Your task to perform on an android device: Check the weather Image 0: 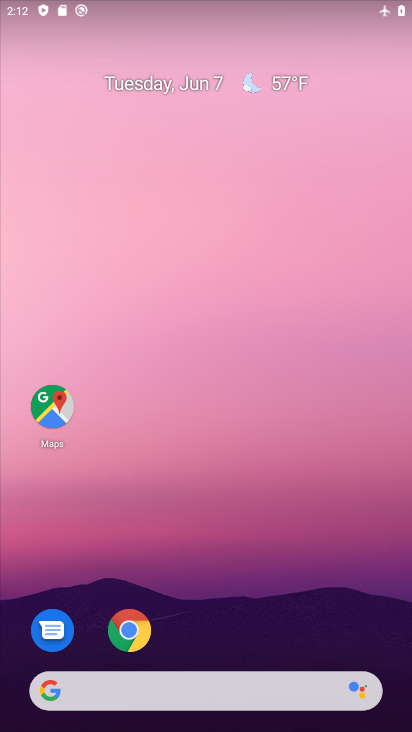
Step 0: drag from (14, 192) to (401, 152)
Your task to perform on an android device: Check the weather Image 1: 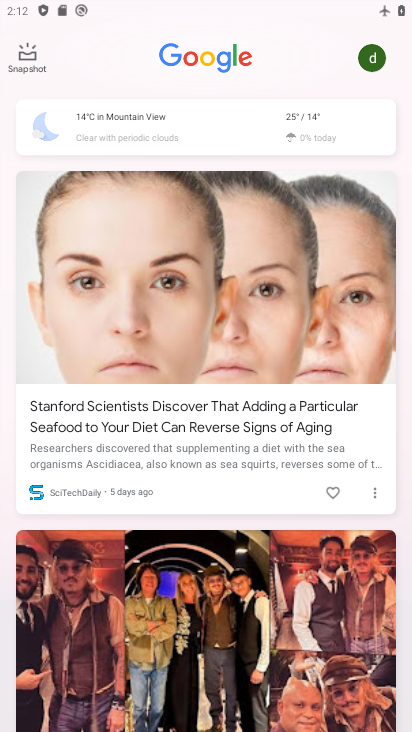
Step 1: click (316, 112)
Your task to perform on an android device: Check the weather Image 2: 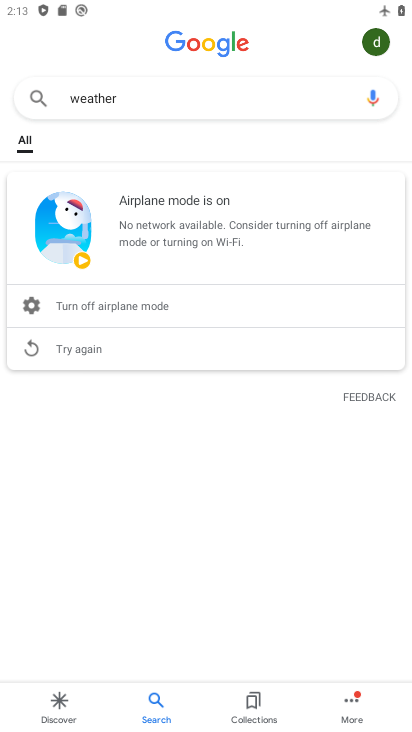
Step 2: task complete